Your task to perform on an android device: turn on improve location accuracy Image 0: 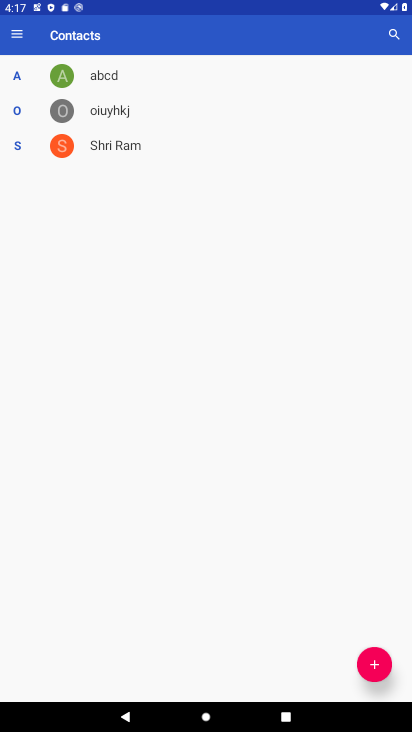
Step 0: press home button
Your task to perform on an android device: turn on improve location accuracy Image 1: 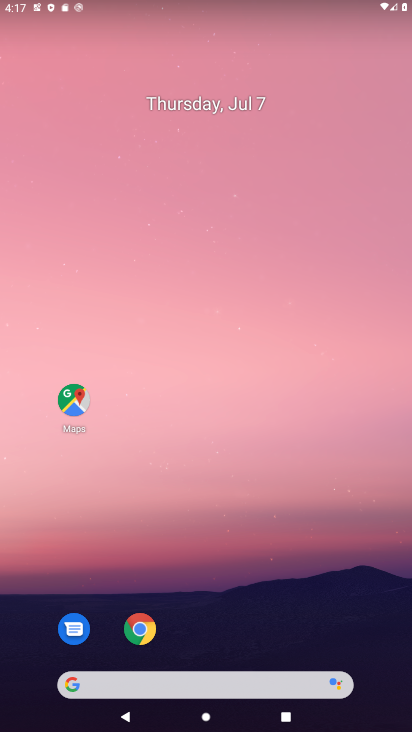
Step 1: drag from (222, 632) to (217, 173)
Your task to perform on an android device: turn on improve location accuracy Image 2: 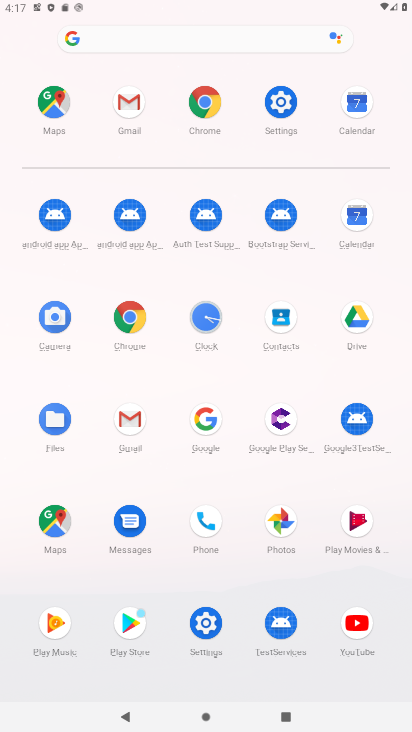
Step 2: click (274, 111)
Your task to perform on an android device: turn on improve location accuracy Image 3: 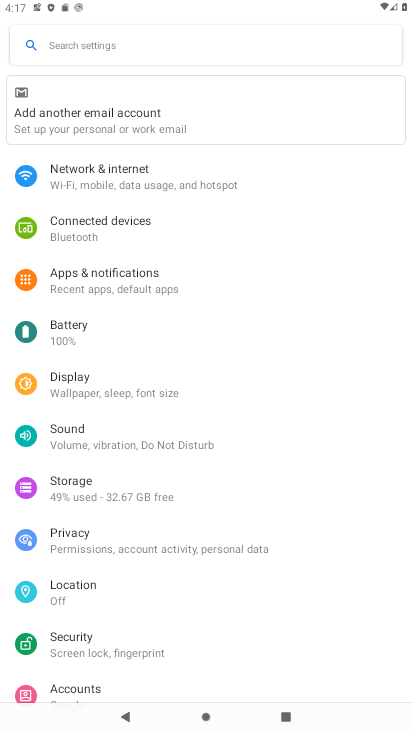
Step 3: click (96, 583)
Your task to perform on an android device: turn on improve location accuracy Image 4: 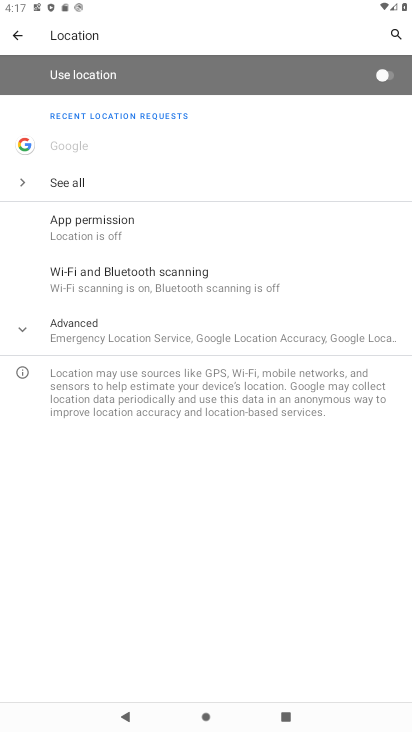
Step 4: click (128, 337)
Your task to perform on an android device: turn on improve location accuracy Image 5: 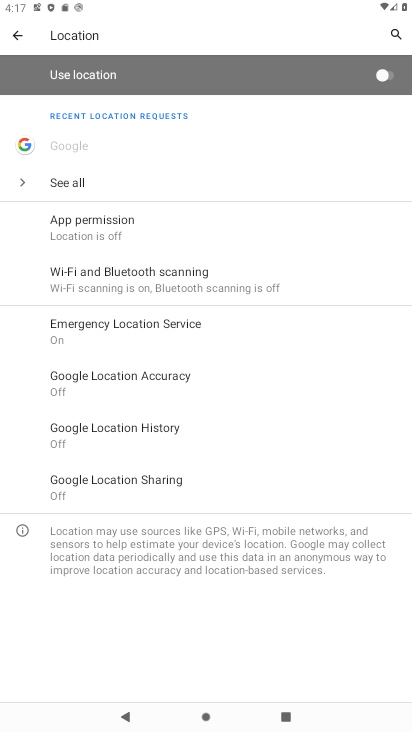
Step 5: click (113, 383)
Your task to perform on an android device: turn on improve location accuracy Image 6: 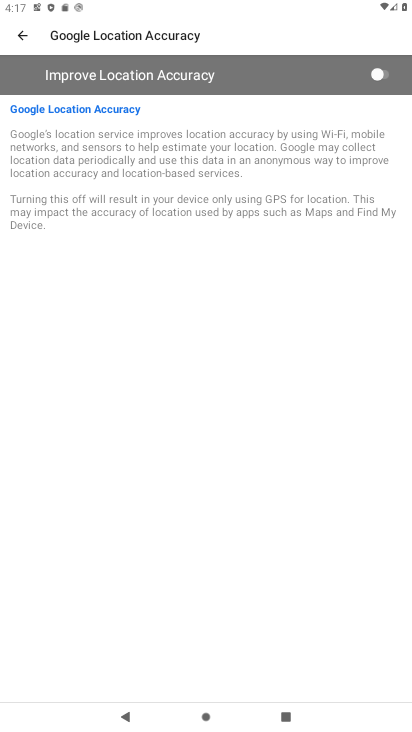
Step 6: click (397, 58)
Your task to perform on an android device: turn on improve location accuracy Image 7: 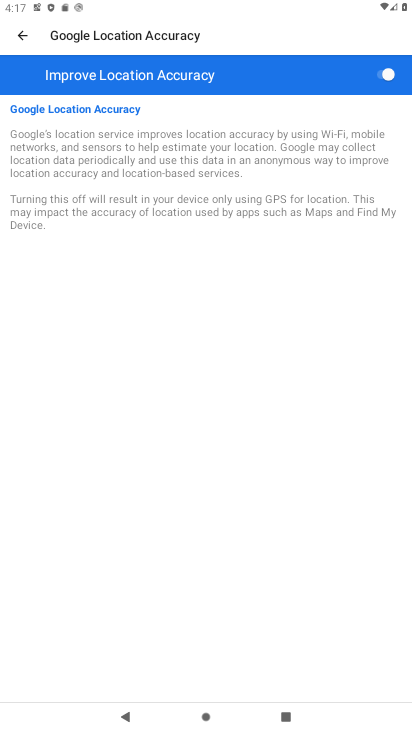
Step 7: task complete